Your task to perform on an android device: toggle airplane mode Image 0: 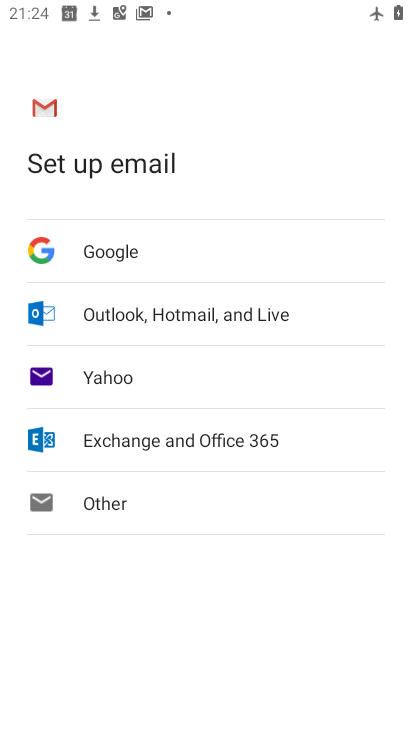
Step 0: press home button
Your task to perform on an android device: toggle airplane mode Image 1: 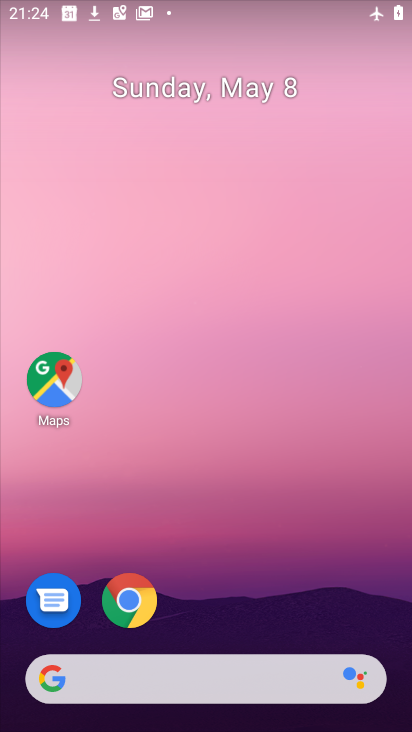
Step 1: drag from (277, 704) to (334, 218)
Your task to perform on an android device: toggle airplane mode Image 2: 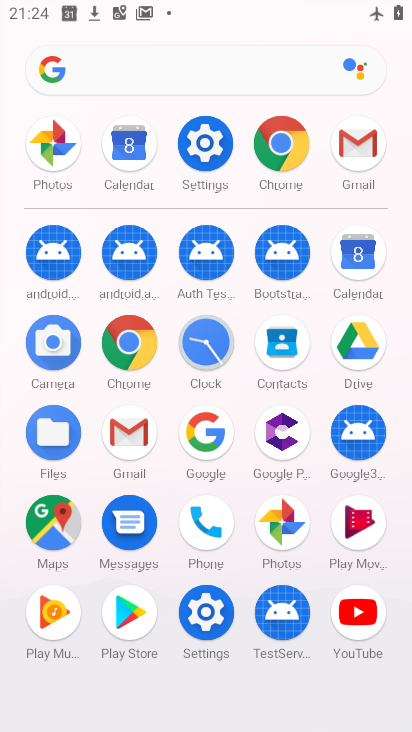
Step 2: click (202, 158)
Your task to perform on an android device: toggle airplane mode Image 3: 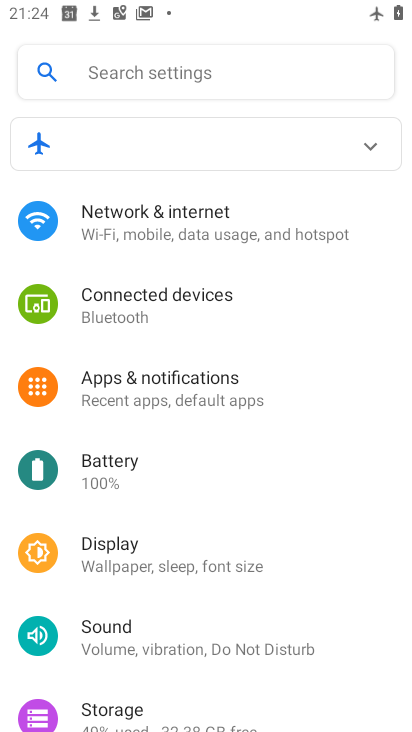
Step 3: click (226, 227)
Your task to perform on an android device: toggle airplane mode Image 4: 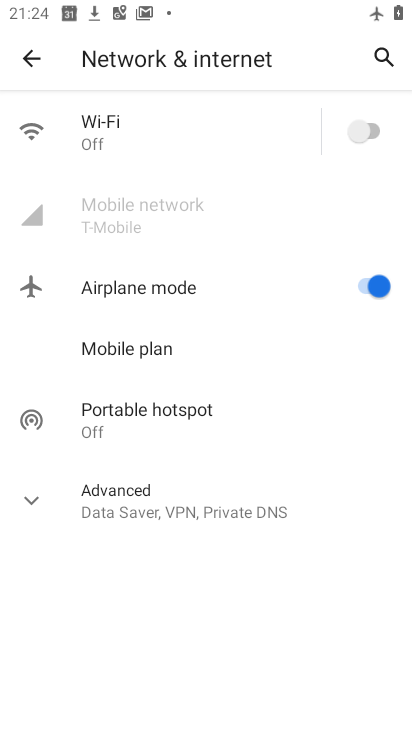
Step 4: click (351, 294)
Your task to perform on an android device: toggle airplane mode Image 5: 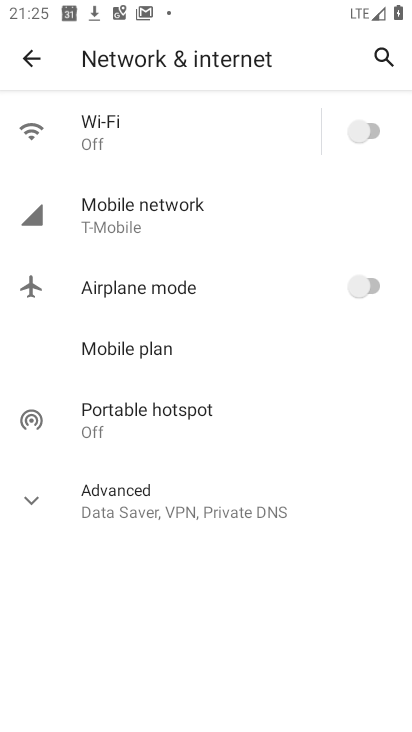
Step 5: task complete